Your task to perform on an android device: Go to Reddit.com Image 0: 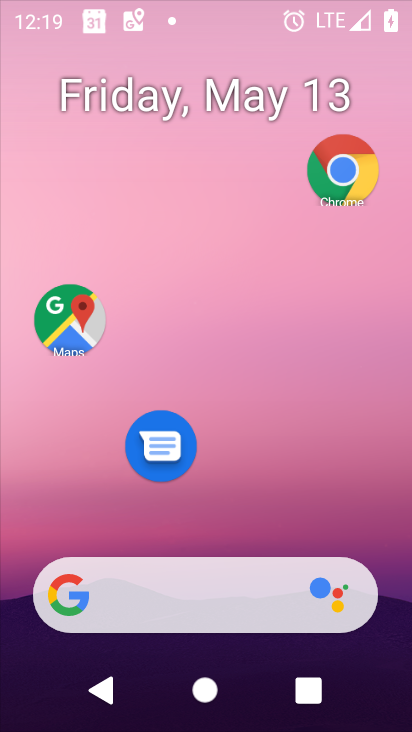
Step 0: drag from (210, 599) to (410, 460)
Your task to perform on an android device: Go to Reddit.com Image 1: 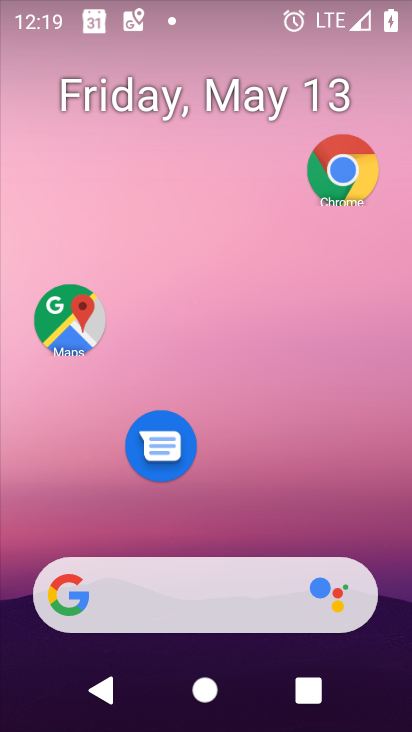
Step 1: click (244, 396)
Your task to perform on an android device: Go to Reddit.com Image 2: 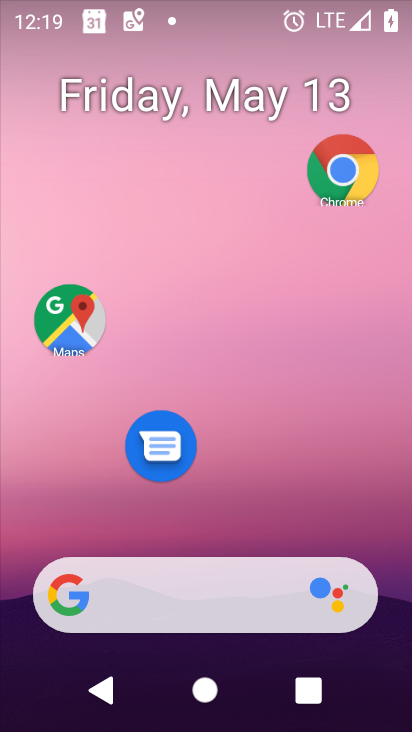
Step 2: drag from (276, 601) to (323, 21)
Your task to perform on an android device: Go to Reddit.com Image 3: 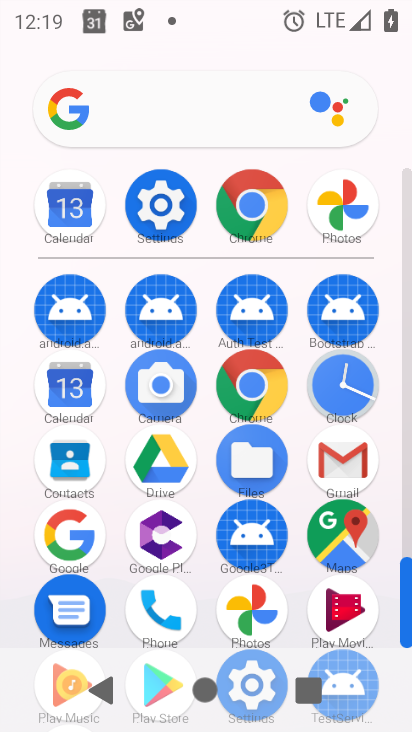
Step 3: click (255, 368)
Your task to perform on an android device: Go to Reddit.com Image 4: 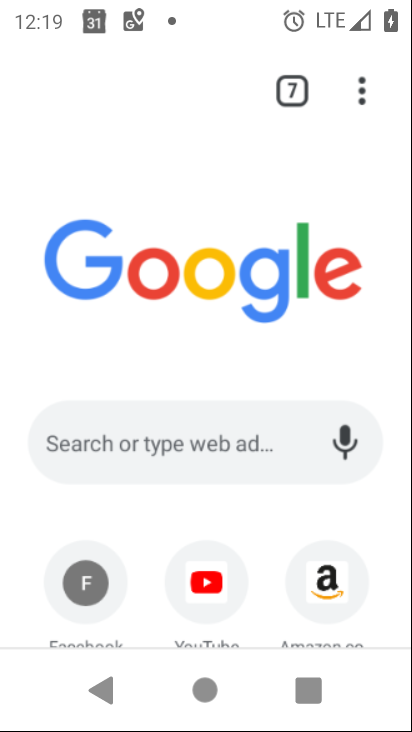
Step 4: click (253, 428)
Your task to perform on an android device: Go to Reddit.com Image 5: 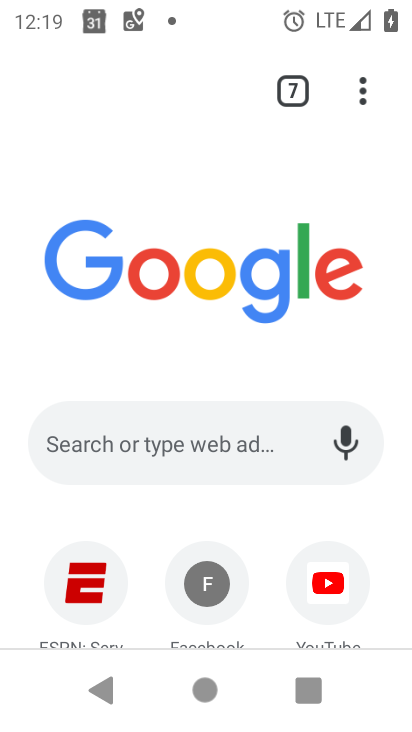
Step 5: click (236, 444)
Your task to perform on an android device: Go to Reddit.com Image 6: 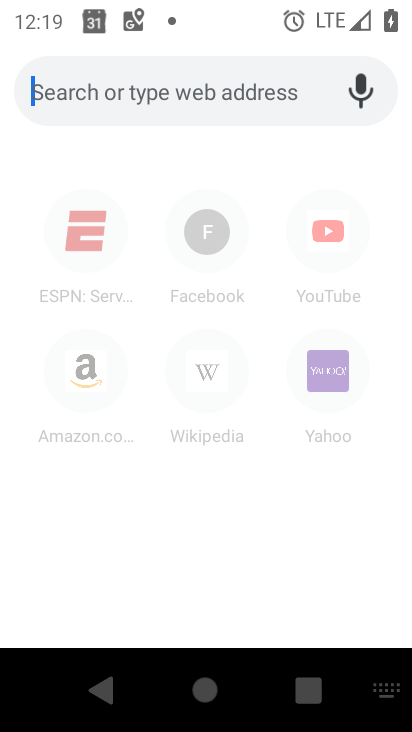
Step 6: type "reddit.com"
Your task to perform on an android device: Go to Reddit.com Image 7: 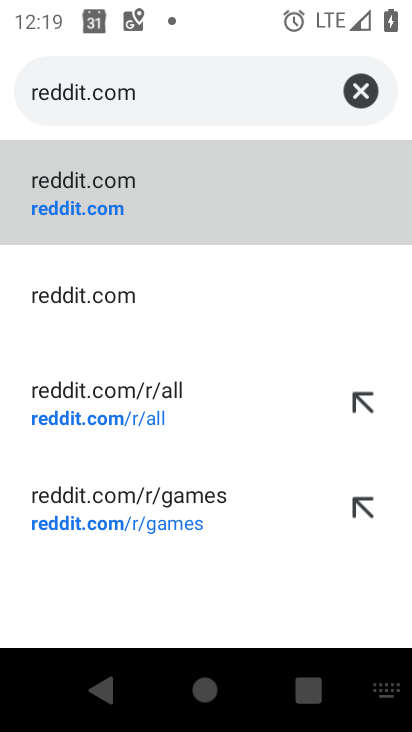
Step 7: click (191, 179)
Your task to perform on an android device: Go to Reddit.com Image 8: 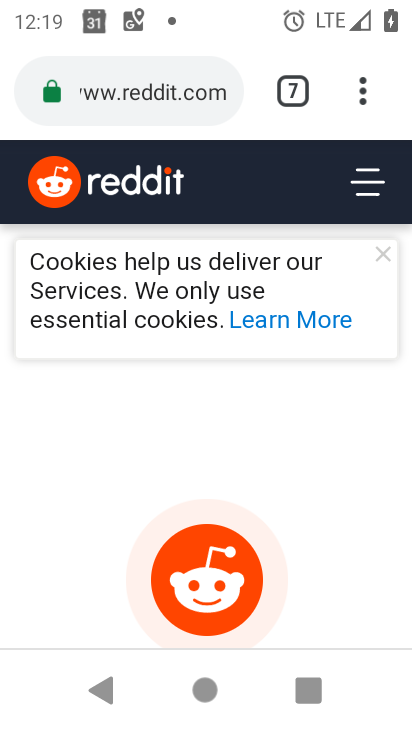
Step 8: task complete